Your task to perform on an android device: What's on my calendar tomorrow? Image 0: 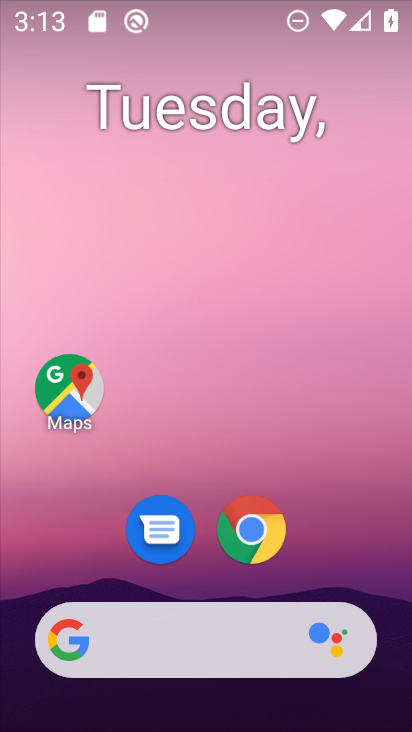
Step 0: drag from (305, 552) to (309, 248)
Your task to perform on an android device: What's on my calendar tomorrow? Image 1: 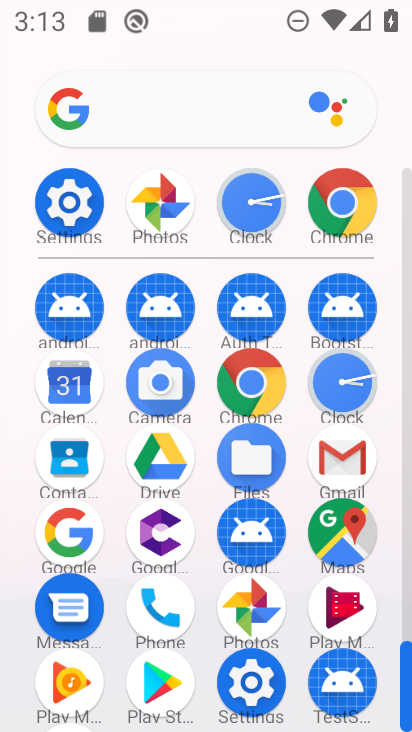
Step 1: click (55, 376)
Your task to perform on an android device: What's on my calendar tomorrow? Image 2: 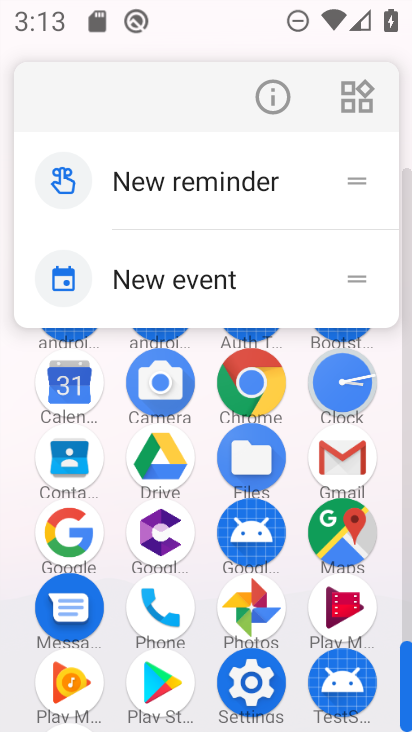
Step 2: click (71, 389)
Your task to perform on an android device: What's on my calendar tomorrow? Image 3: 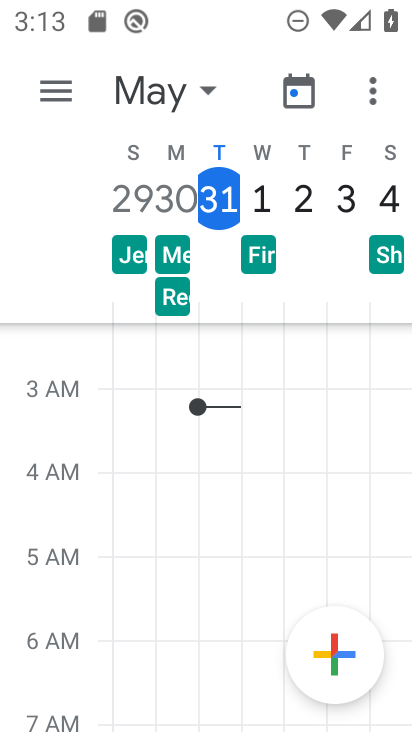
Step 3: click (262, 189)
Your task to perform on an android device: What's on my calendar tomorrow? Image 4: 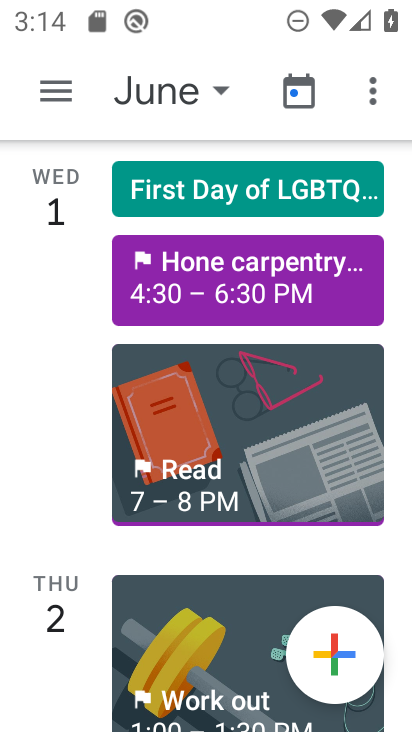
Step 4: task complete